Your task to perform on an android device: Clear the shopping cart on bestbuy.com. Image 0: 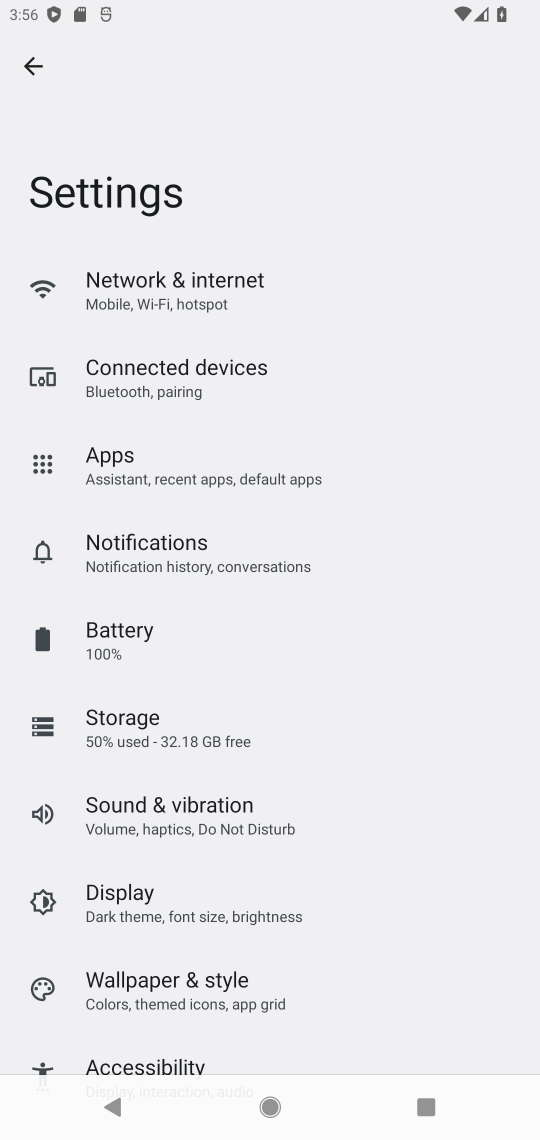
Step 0: press home button
Your task to perform on an android device: Clear the shopping cart on bestbuy.com. Image 1: 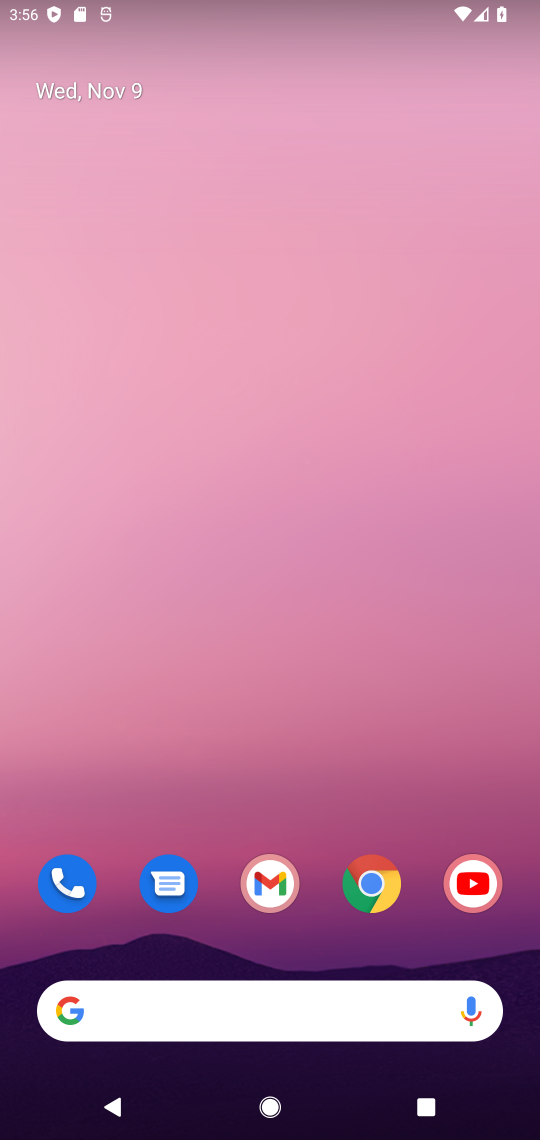
Step 1: click (372, 887)
Your task to perform on an android device: Clear the shopping cart on bestbuy.com. Image 2: 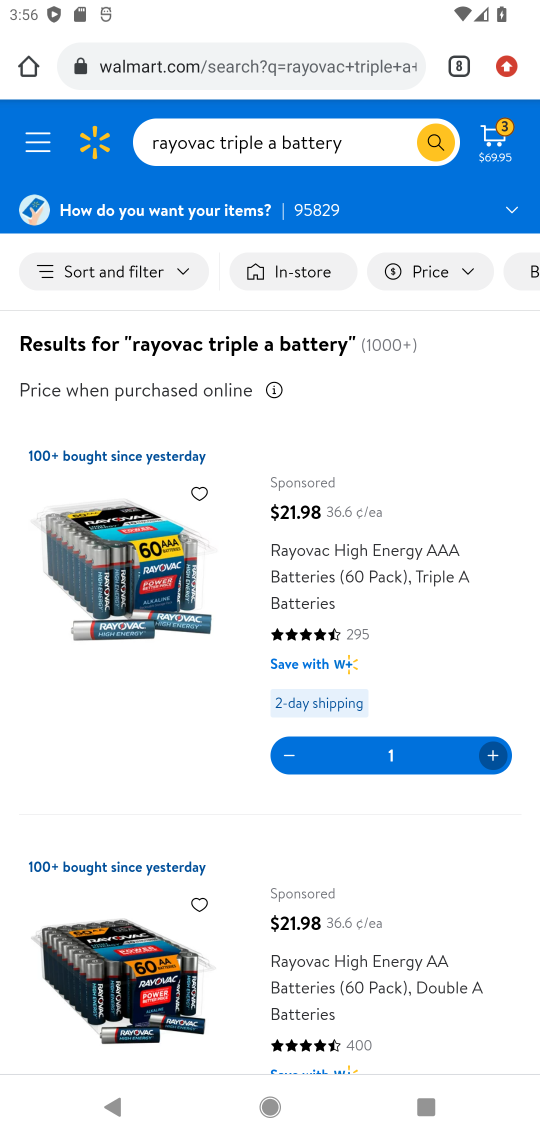
Step 2: click (460, 71)
Your task to perform on an android device: Clear the shopping cart on bestbuy.com. Image 3: 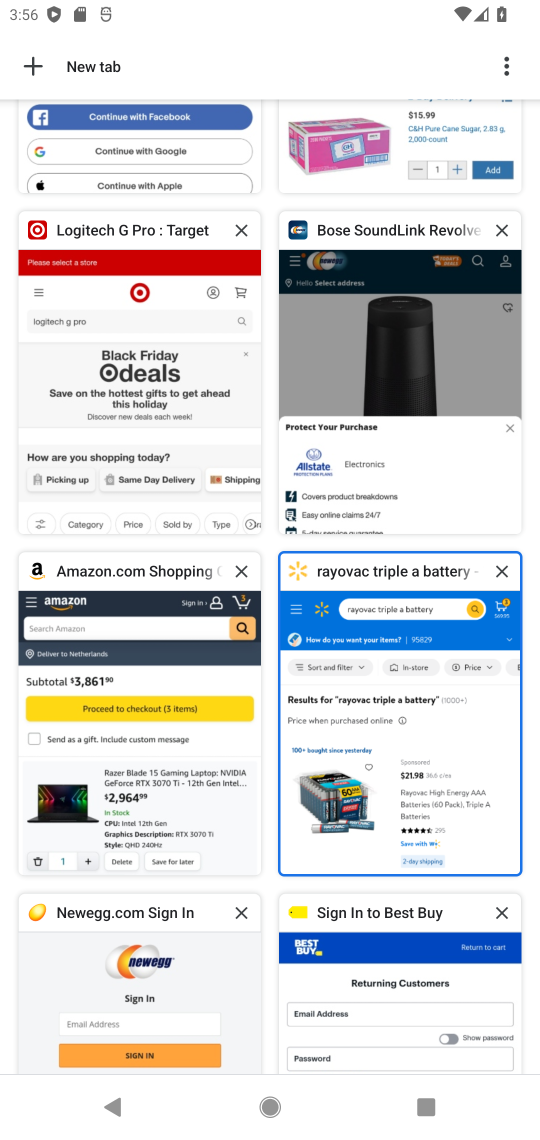
Step 3: click (318, 954)
Your task to perform on an android device: Clear the shopping cart on bestbuy.com. Image 4: 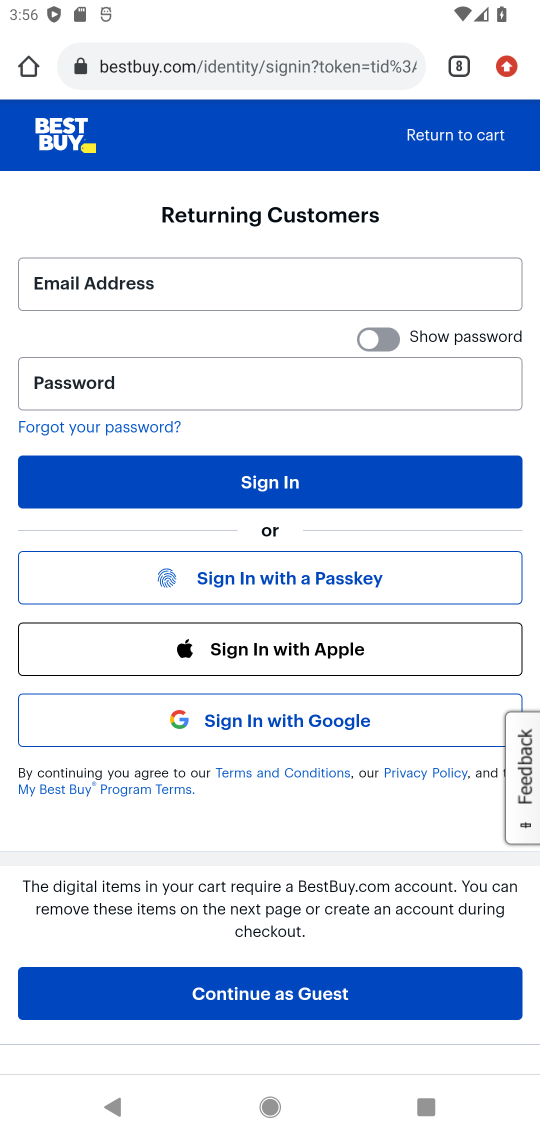
Step 4: click (455, 126)
Your task to perform on an android device: Clear the shopping cart on bestbuy.com. Image 5: 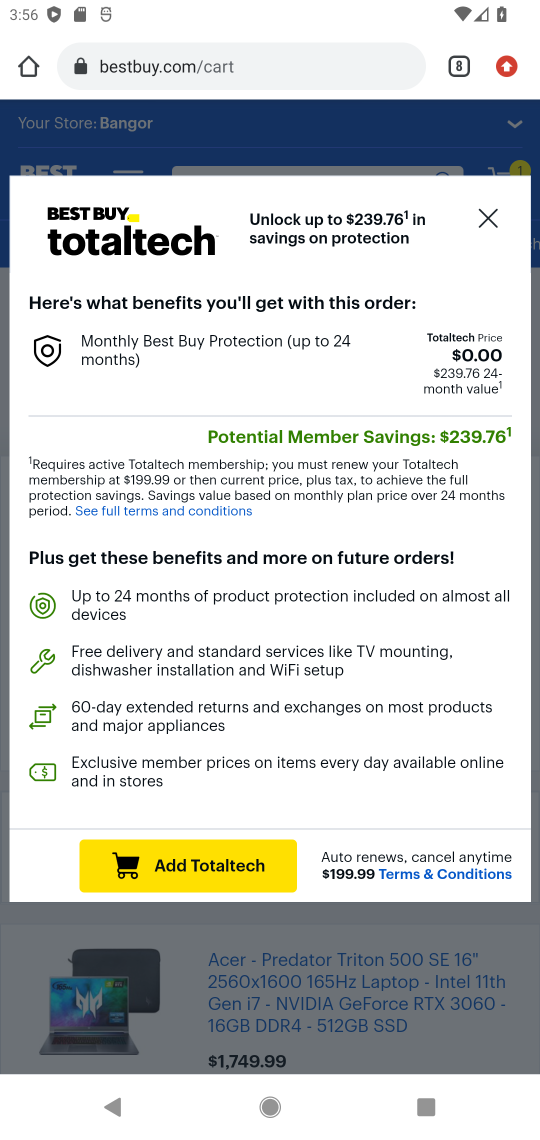
Step 5: click (487, 216)
Your task to perform on an android device: Clear the shopping cart on bestbuy.com. Image 6: 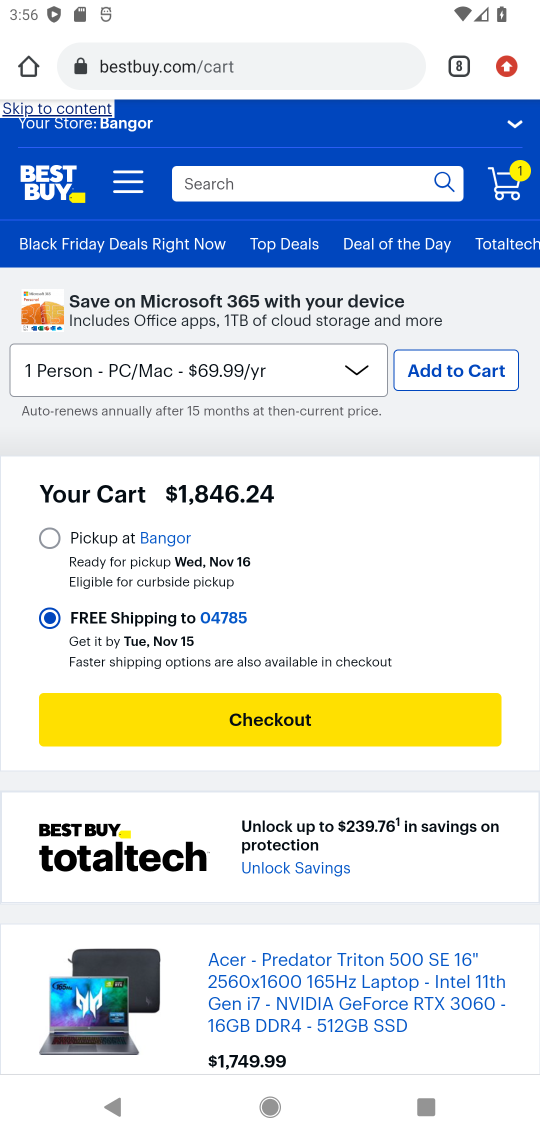
Step 6: drag from (177, 756) to (238, 335)
Your task to perform on an android device: Clear the shopping cart on bestbuy.com. Image 7: 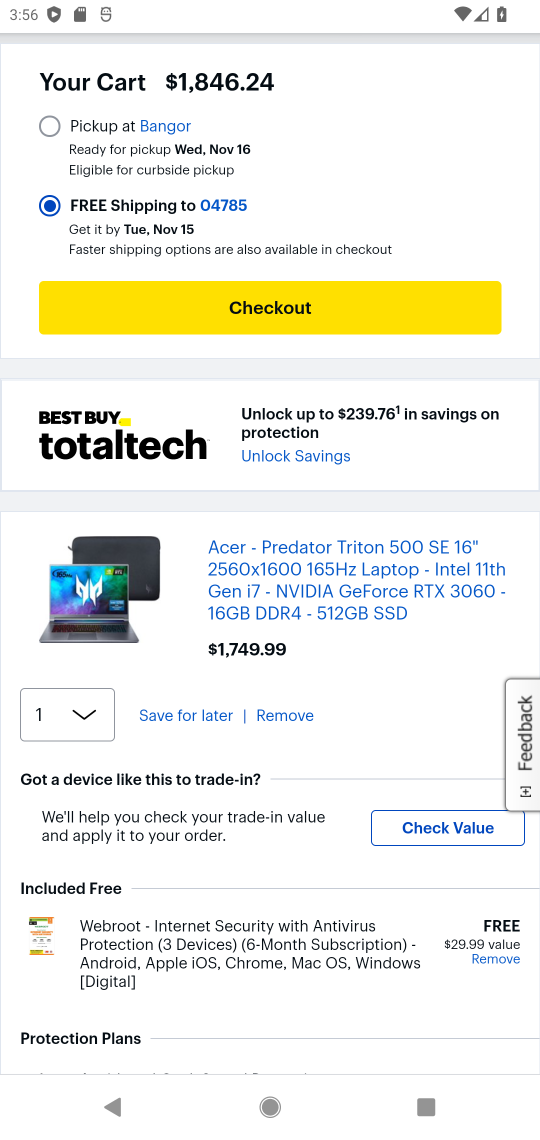
Step 7: click (281, 708)
Your task to perform on an android device: Clear the shopping cart on bestbuy.com. Image 8: 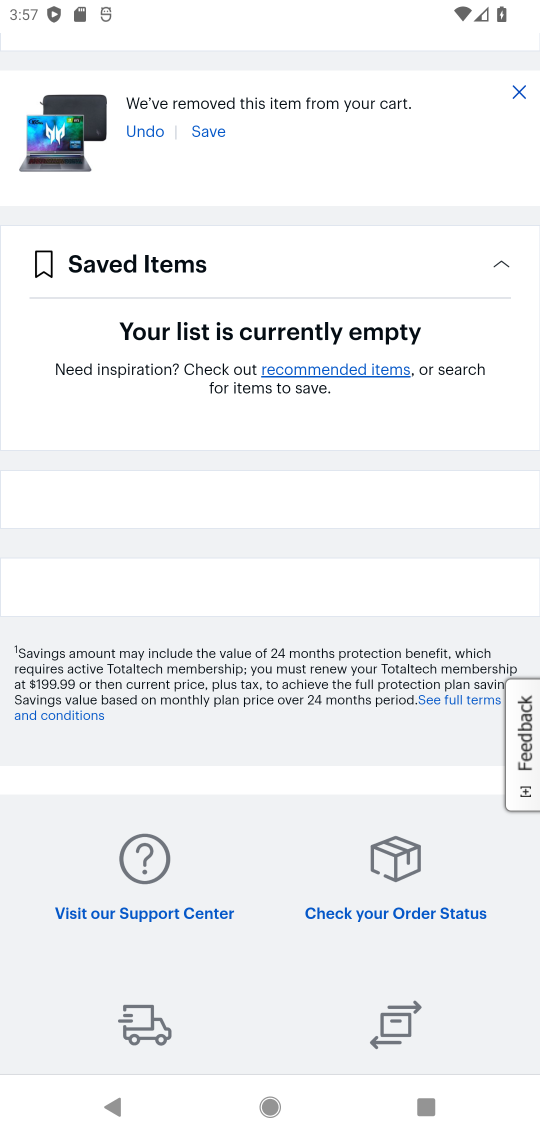
Step 8: task complete